Your task to perform on an android device: Search for the best rated lawnmower on Lowes.com Image 0: 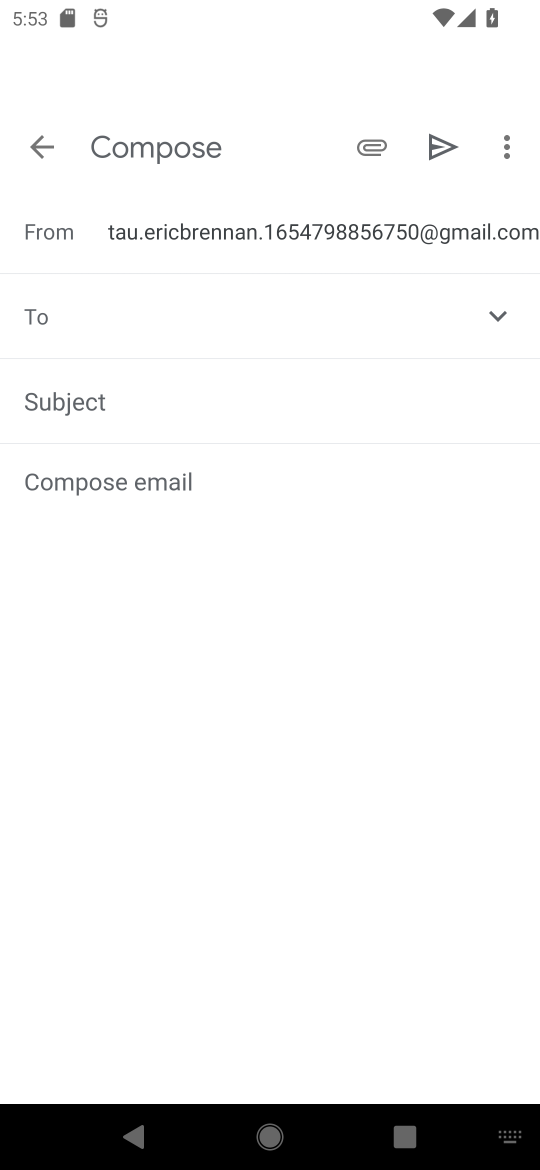
Step 0: press home button
Your task to perform on an android device: Search for the best rated lawnmower on Lowes.com Image 1: 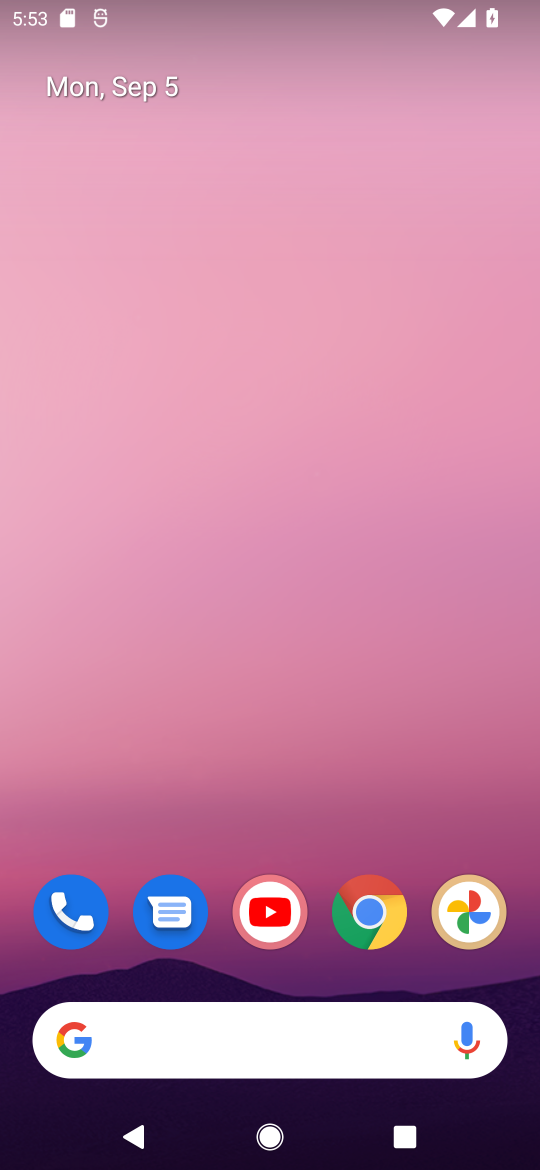
Step 1: click (370, 905)
Your task to perform on an android device: Search for the best rated lawnmower on Lowes.com Image 2: 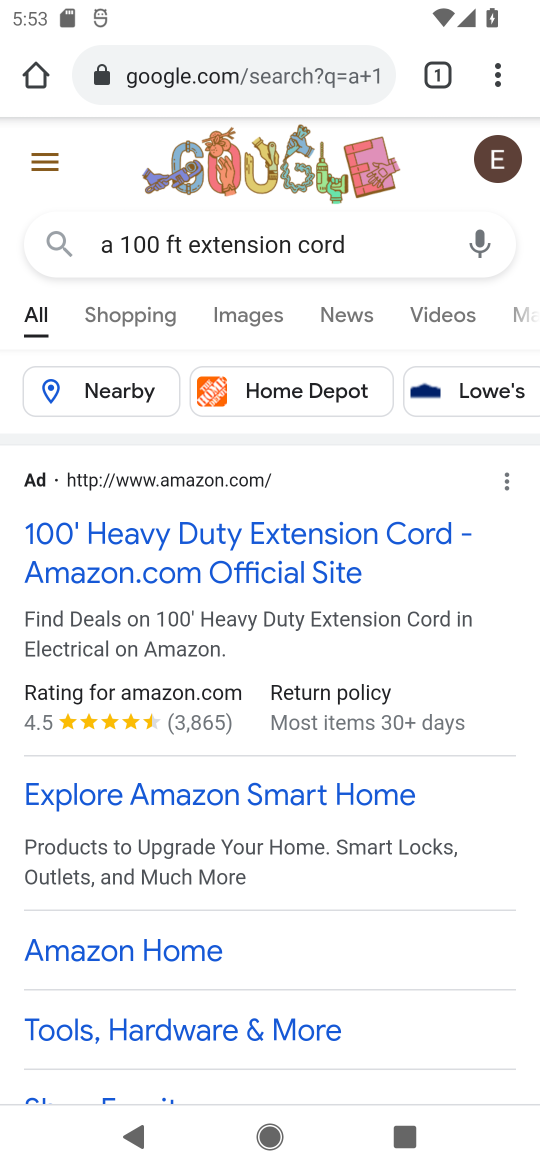
Step 2: click (149, 55)
Your task to perform on an android device: Search for the best rated lawnmower on Lowes.com Image 3: 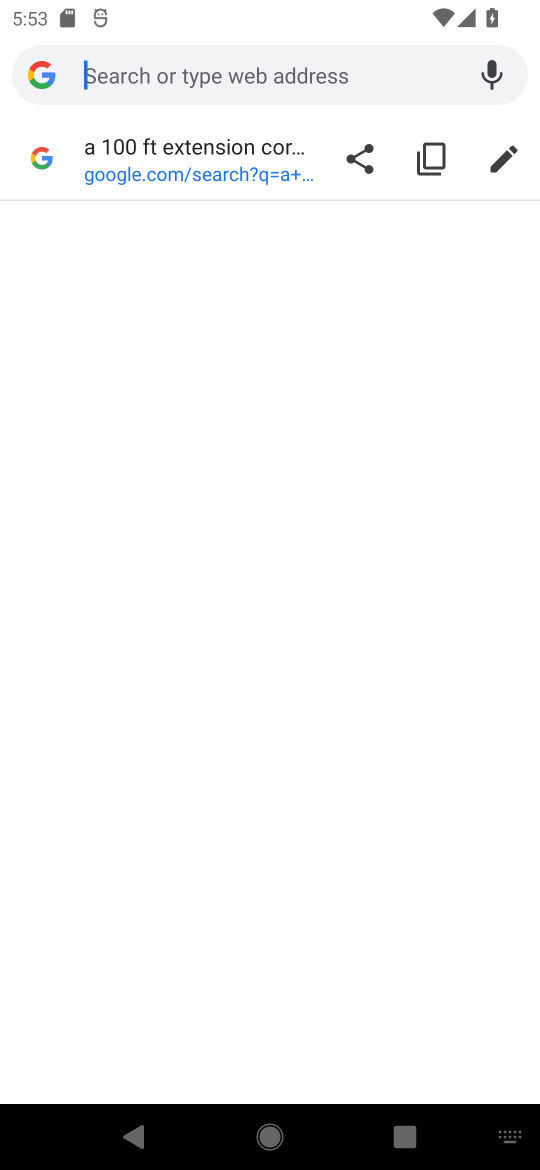
Step 3: type "lowes.com"
Your task to perform on an android device: Search for the best rated lawnmower on Lowes.com Image 4: 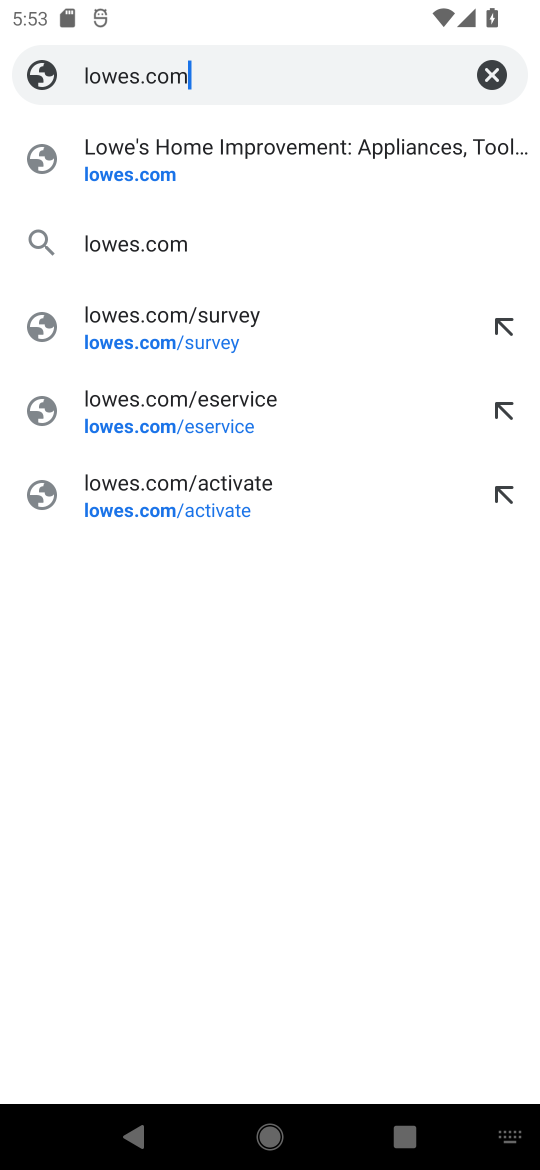
Step 4: click (141, 219)
Your task to perform on an android device: Search for the best rated lawnmower on Lowes.com Image 5: 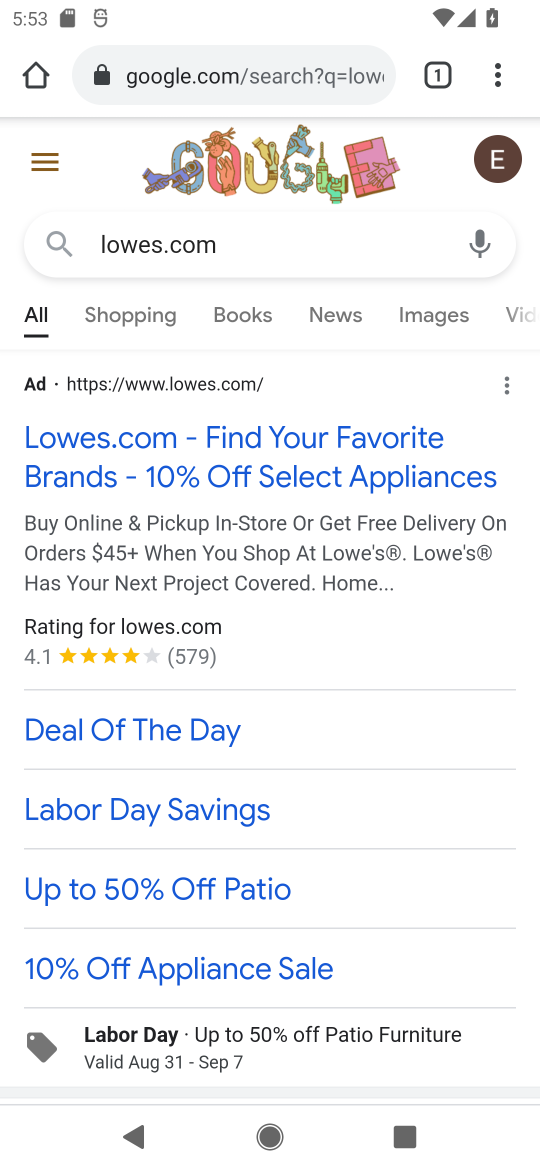
Step 5: click (159, 480)
Your task to perform on an android device: Search for the best rated lawnmower on Lowes.com Image 6: 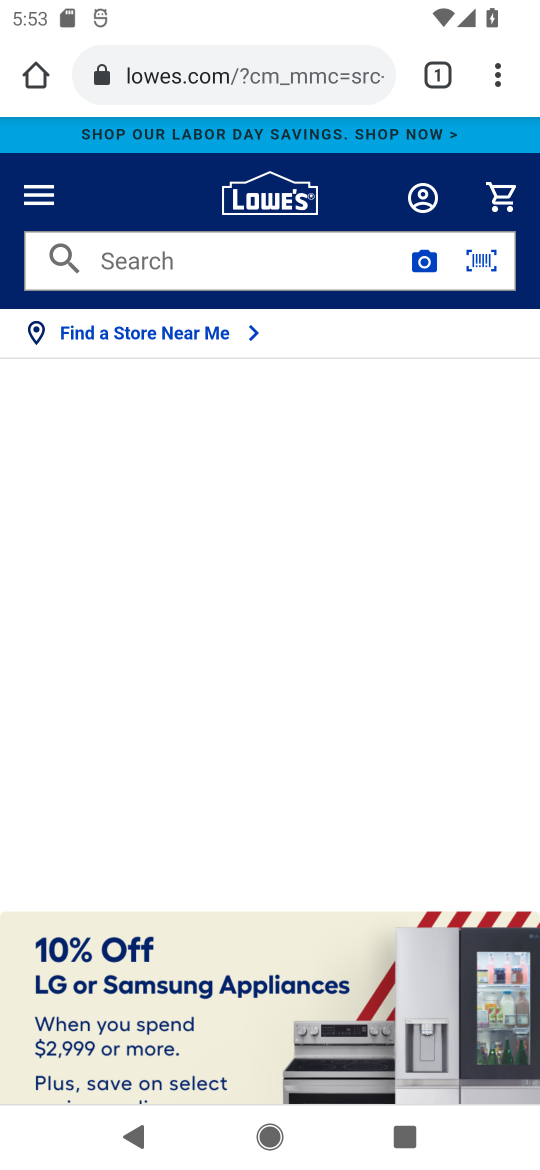
Step 6: click (193, 252)
Your task to perform on an android device: Search for the best rated lawnmower on Lowes.com Image 7: 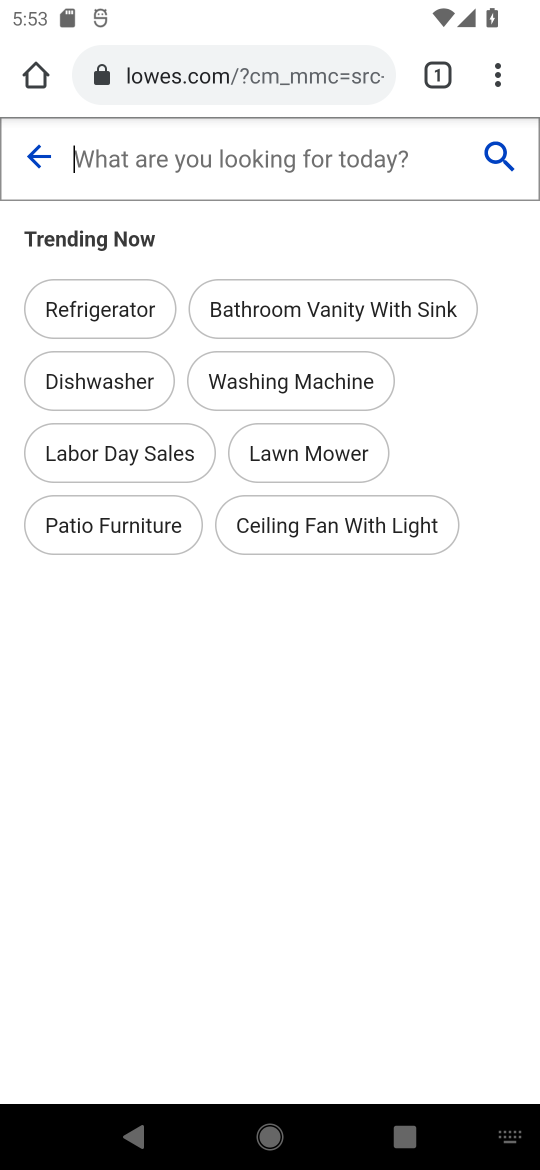
Step 7: type "the best rated lawnmower"
Your task to perform on an android device: Search for the best rated lawnmower on Lowes.com Image 8: 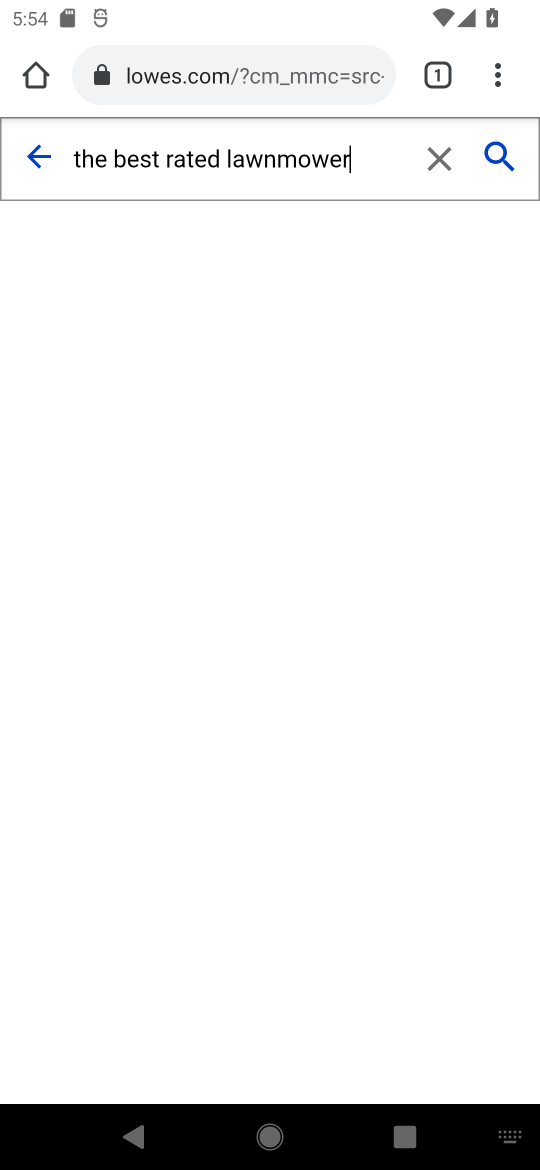
Step 8: click (492, 155)
Your task to perform on an android device: Search for the best rated lawnmower on Lowes.com Image 9: 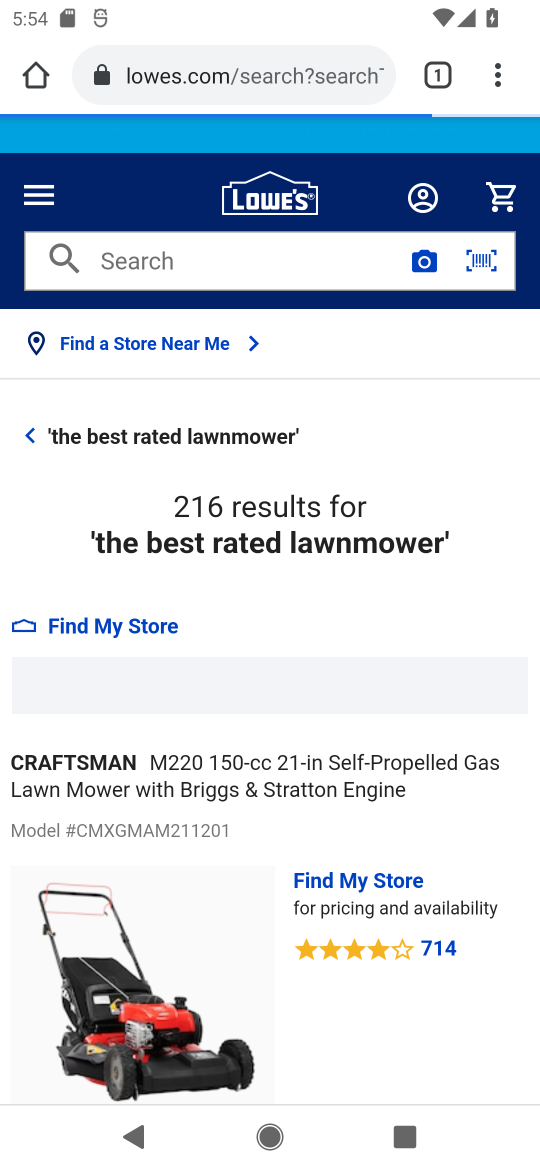
Step 9: task complete